Your task to perform on an android device: Show me popular games on the Play Store Image 0: 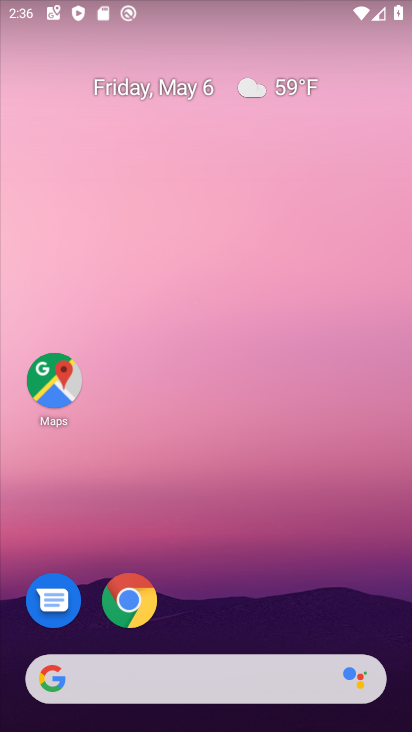
Step 0: drag from (231, 589) to (277, 56)
Your task to perform on an android device: Show me popular games on the Play Store Image 1: 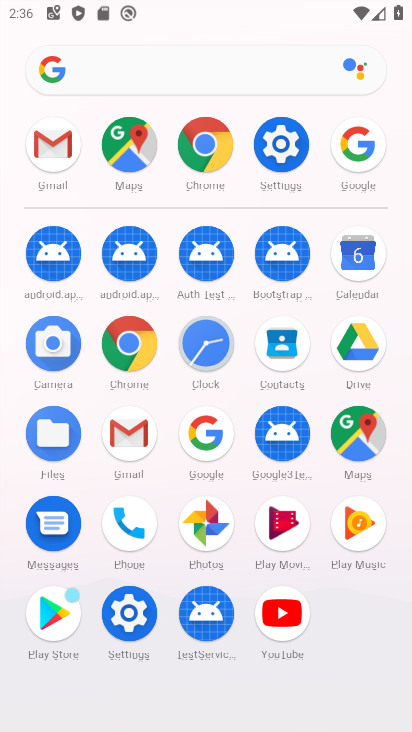
Step 1: click (49, 612)
Your task to perform on an android device: Show me popular games on the Play Store Image 2: 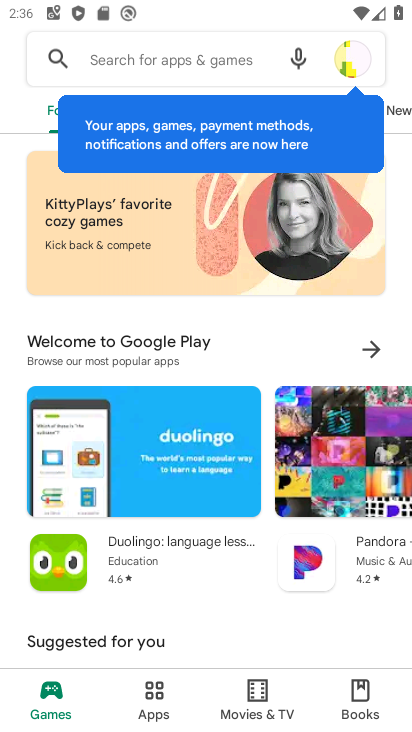
Step 2: click (15, 73)
Your task to perform on an android device: Show me popular games on the Play Store Image 3: 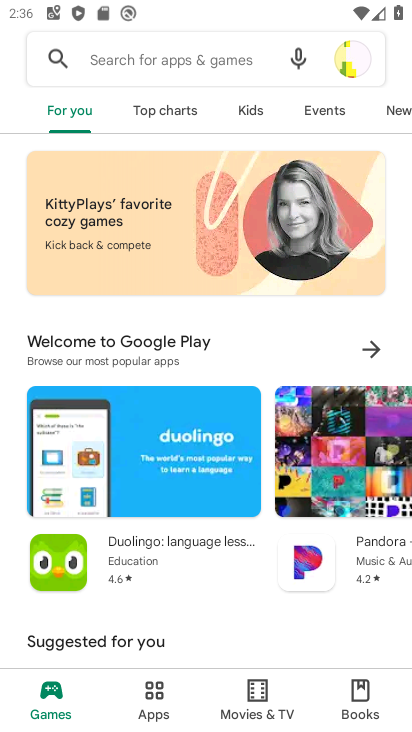
Step 3: click (51, 689)
Your task to perform on an android device: Show me popular games on the Play Store Image 4: 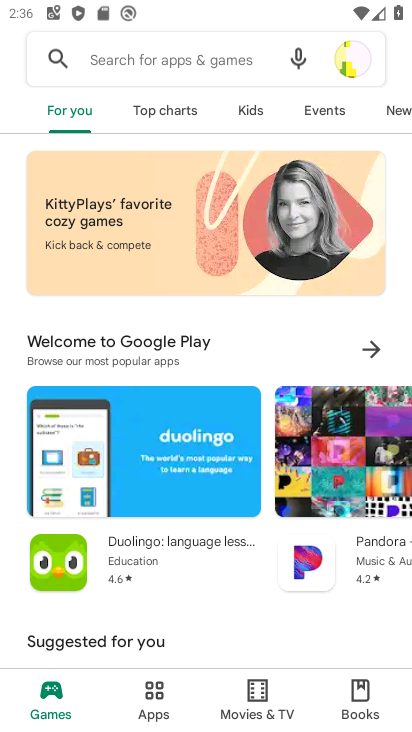
Step 4: drag from (204, 128) to (407, 117)
Your task to perform on an android device: Show me popular games on the Play Store Image 5: 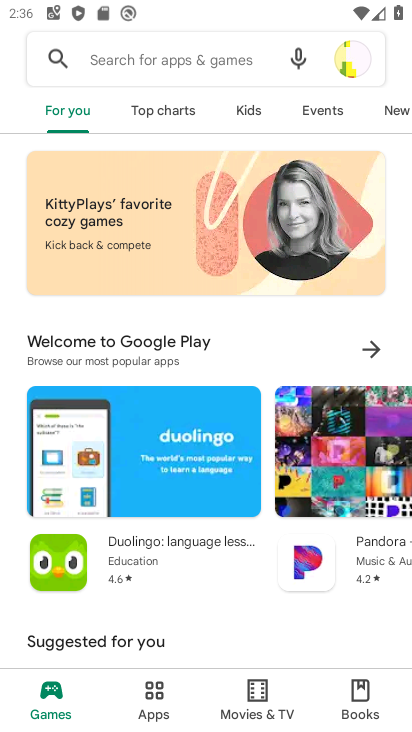
Step 5: drag from (337, 97) to (23, 111)
Your task to perform on an android device: Show me popular games on the Play Store Image 6: 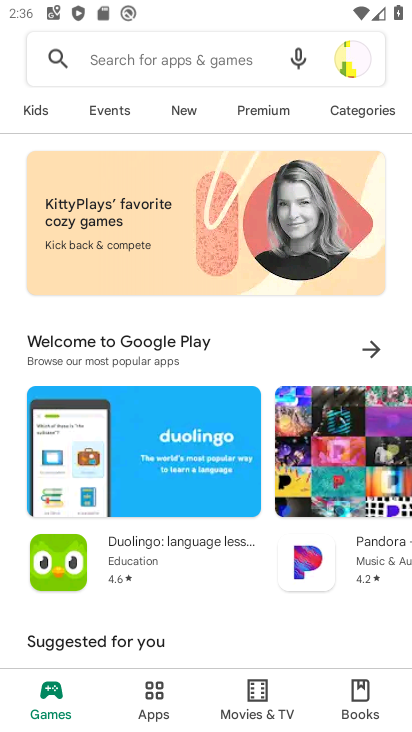
Step 6: drag from (318, 124) to (56, 136)
Your task to perform on an android device: Show me popular games on the Play Store Image 7: 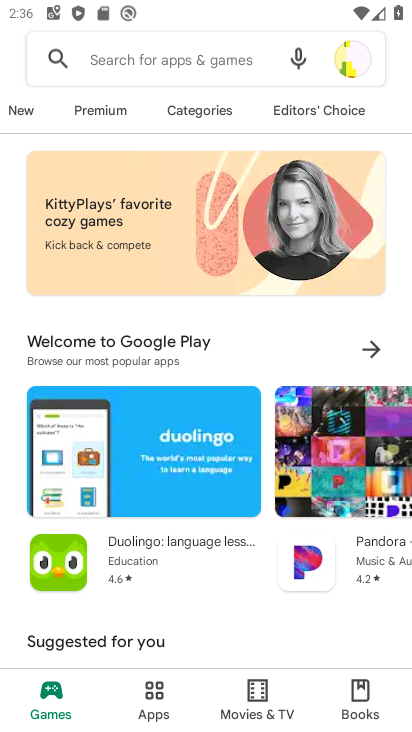
Step 7: drag from (169, 604) to (188, 173)
Your task to perform on an android device: Show me popular games on the Play Store Image 8: 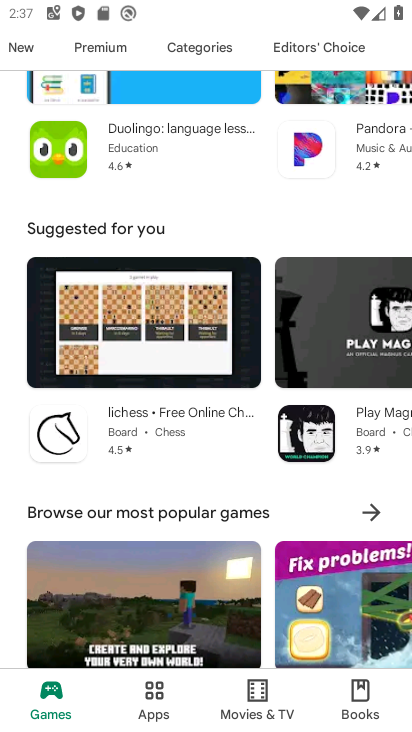
Step 8: drag from (241, 480) to (246, 341)
Your task to perform on an android device: Show me popular games on the Play Store Image 9: 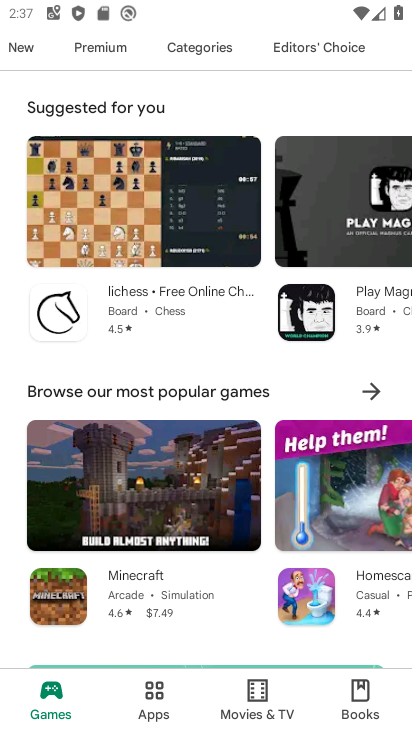
Step 9: click (365, 392)
Your task to perform on an android device: Show me popular games on the Play Store Image 10: 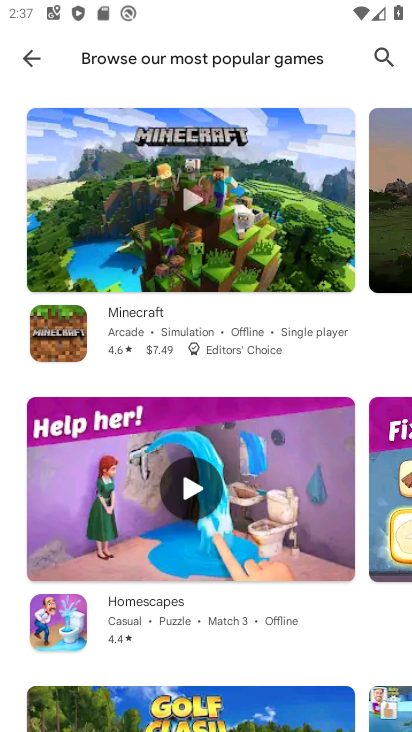
Step 10: task complete